Your task to perform on an android device: turn off priority inbox in the gmail app Image 0: 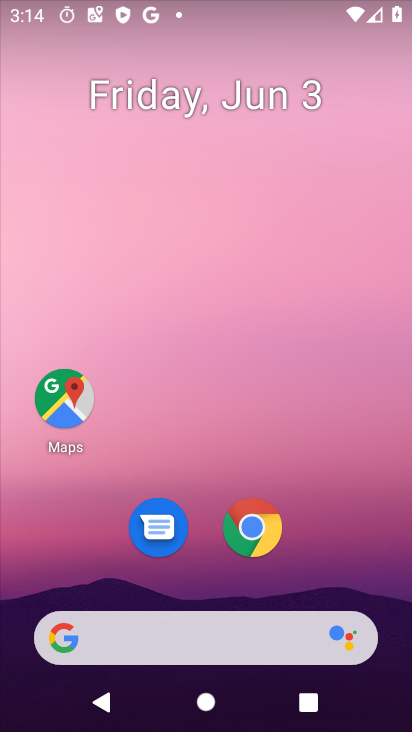
Step 0: drag from (303, 562) to (249, 147)
Your task to perform on an android device: turn off priority inbox in the gmail app Image 1: 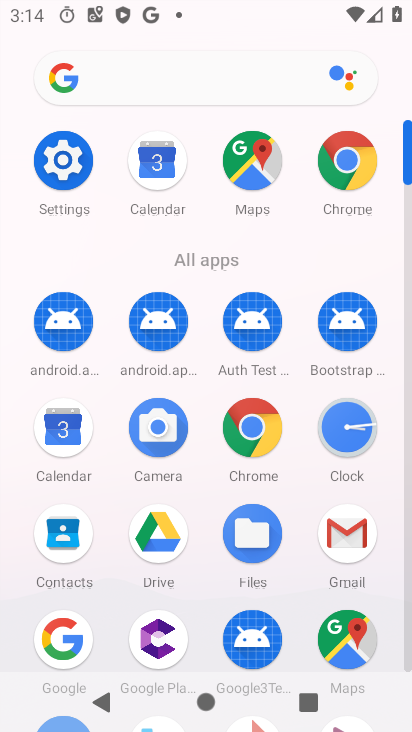
Step 1: click (345, 537)
Your task to perform on an android device: turn off priority inbox in the gmail app Image 2: 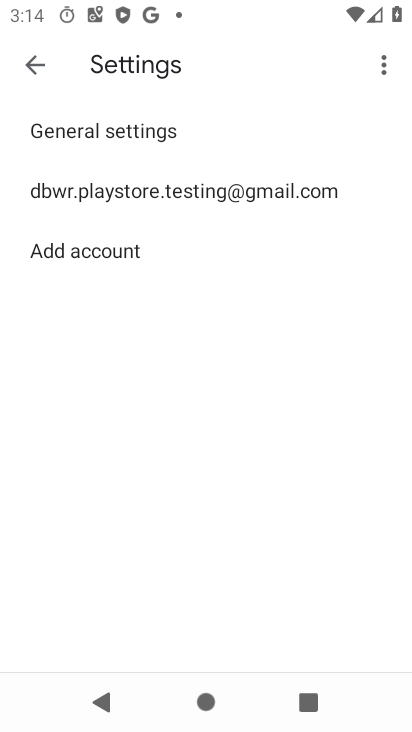
Step 2: click (124, 199)
Your task to perform on an android device: turn off priority inbox in the gmail app Image 3: 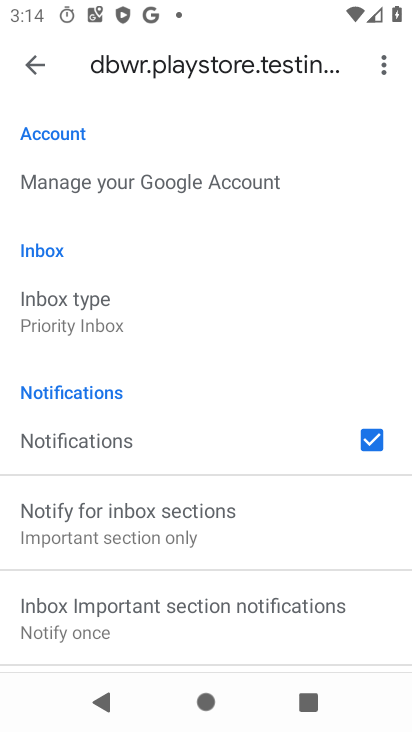
Step 3: click (49, 310)
Your task to perform on an android device: turn off priority inbox in the gmail app Image 4: 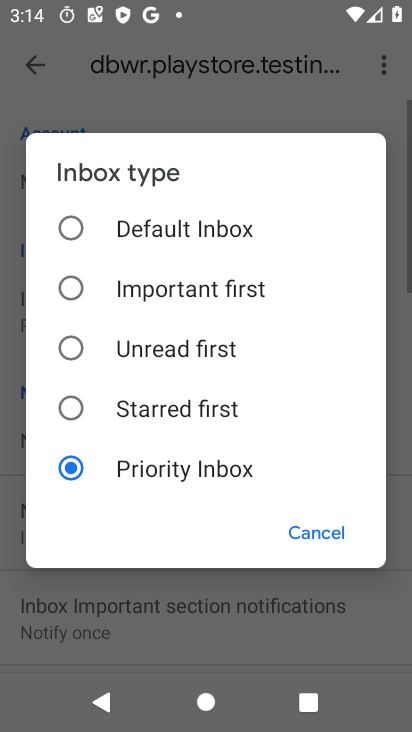
Step 4: click (62, 223)
Your task to perform on an android device: turn off priority inbox in the gmail app Image 5: 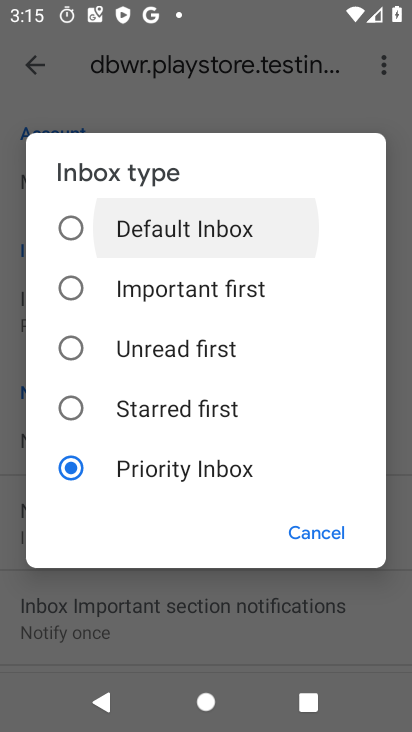
Step 5: click (73, 206)
Your task to perform on an android device: turn off priority inbox in the gmail app Image 6: 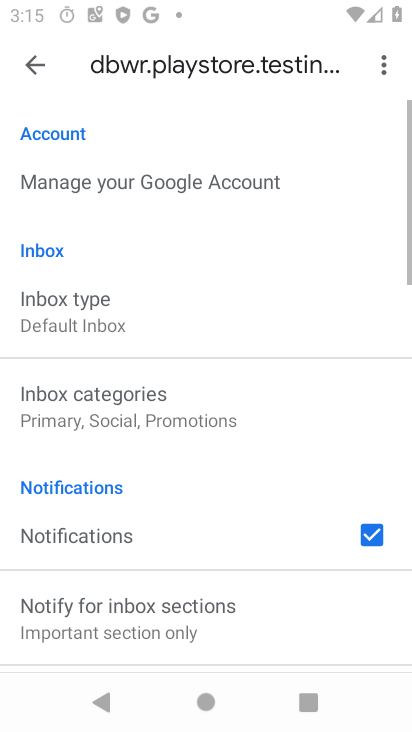
Step 6: click (72, 214)
Your task to perform on an android device: turn off priority inbox in the gmail app Image 7: 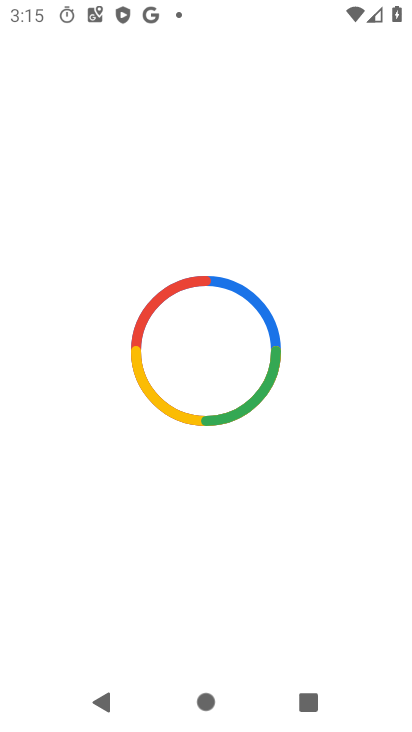
Step 7: click (103, 693)
Your task to perform on an android device: turn off priority inbox in the gmail app Image 8: 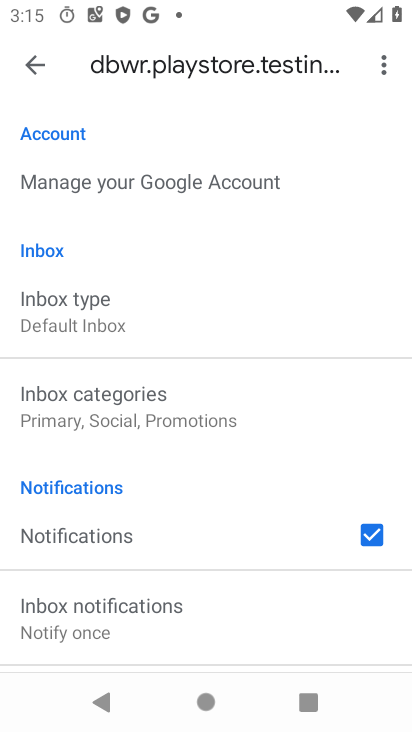
Step 8: task complete